Your task to perform on an android device: move an email to a new category in the gmail app Image 0: 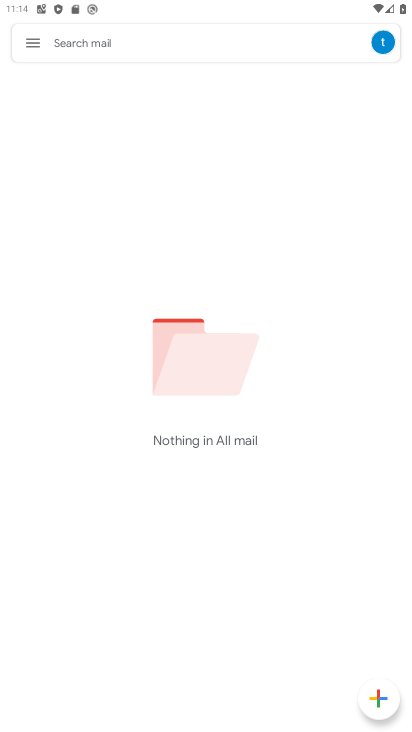
Step 0: press home button
Your task to perform on an android device: move an email to a new category in the gmail app Image 1: 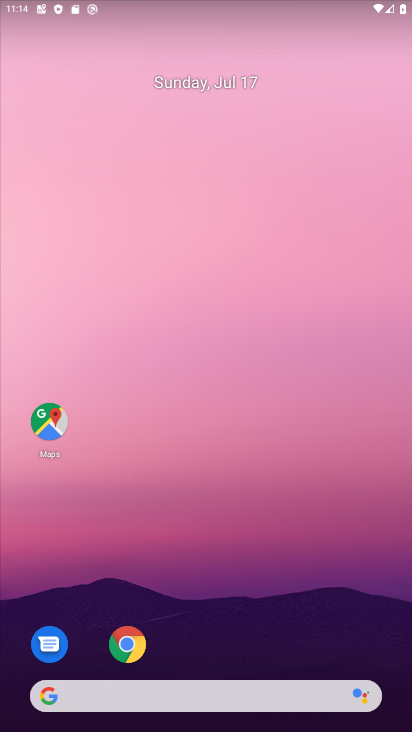
Step 1: drag from (239, 515) to (243, 62)
Your task to perform on an android device: move an email to a new category in the gmail app Image 2: 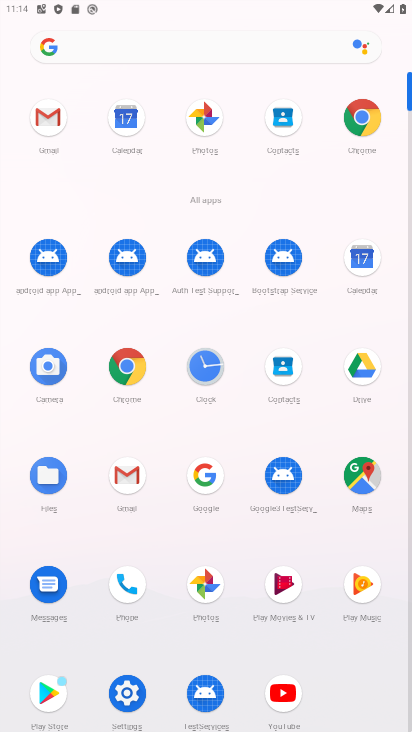
Step 2: click (40, 117)
Your task to perform on an android device: move an email to a new category in the gmail app Image 3: 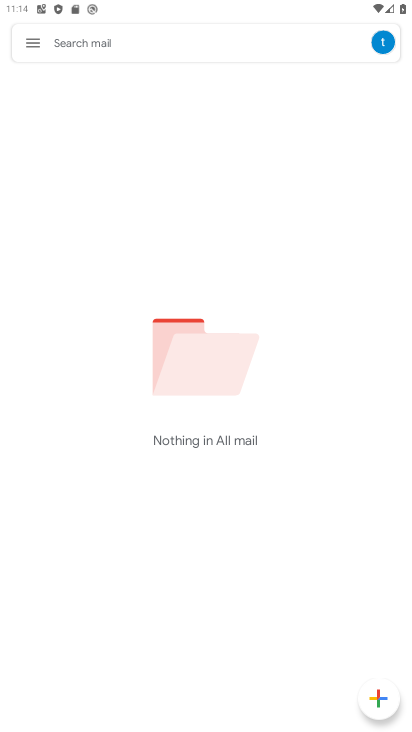
Step 3: click (32, 37)
Your task to perform on an android device: move an email to a new category in the gmail app Image 4: 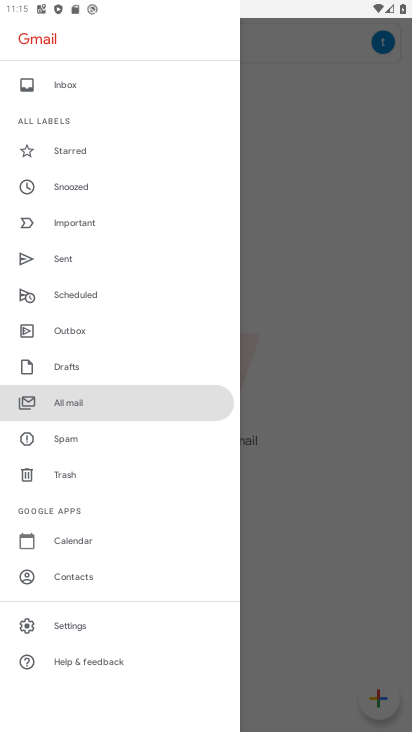
Step 4: click (323, 424)
Your task to perform on an android device: move an email to a new category in the gmail app Image 5: 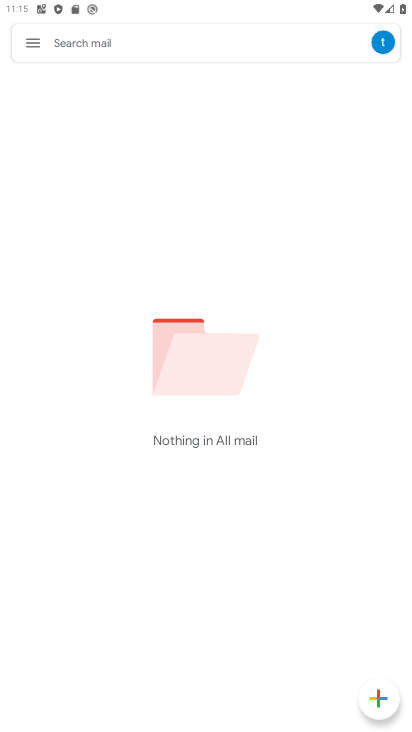
Step 5: task complete